Your task to perform on an android device: toggle sleep mode Image 0: 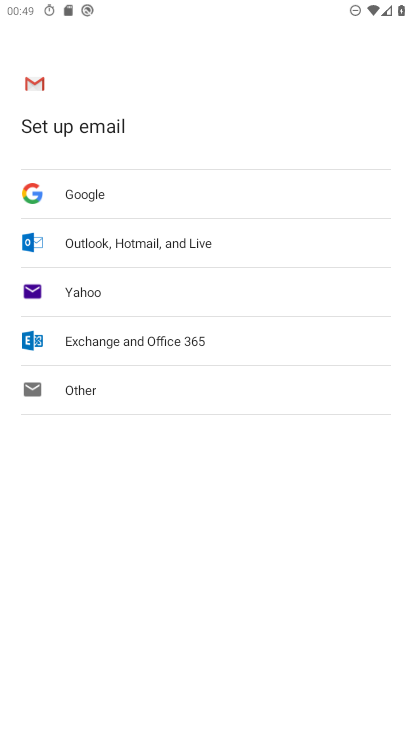
Step 0: press home button
Your task to perform on an android device: toggle sleep mode Image 1: 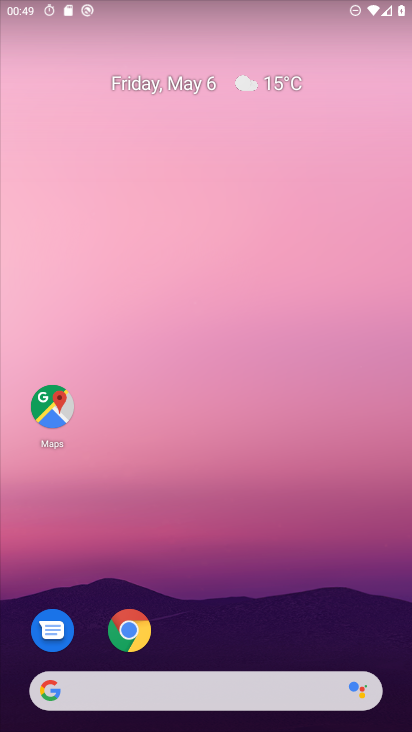
Step 1: drag from (308, 616) to (325, 108)
Your task to perform on an android device: toggle sleep mode Image 2: 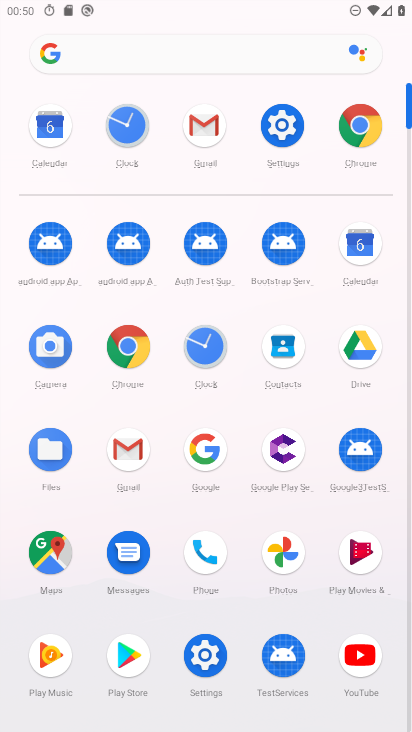
Step 2: click (285, 137)
Your task to perform on an android device: toggle sleep mode Image 3: 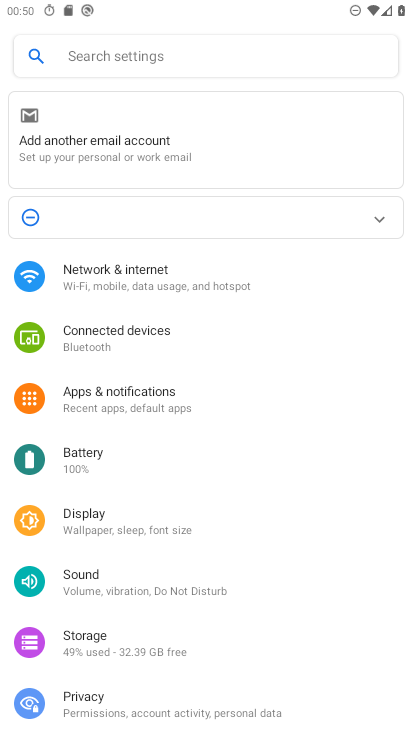
Step 3: drag from (214, 578) to (287, 478)
Your task to perform on an android device: toggle sleep mode Image 4: 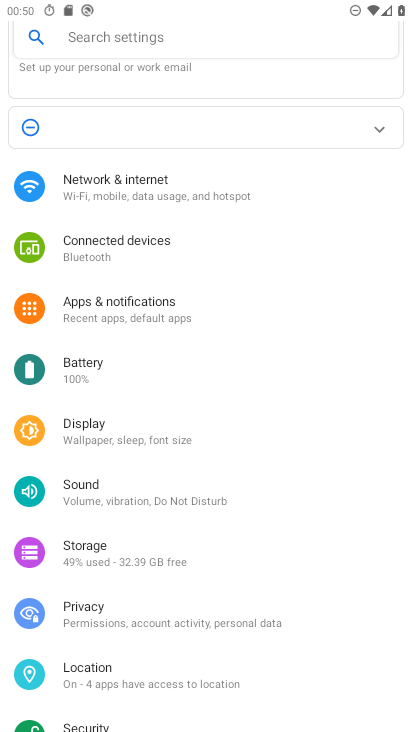
Step 4: click (136, 507)
Your task to perform on an android device: toggle sleep mode Image 5: 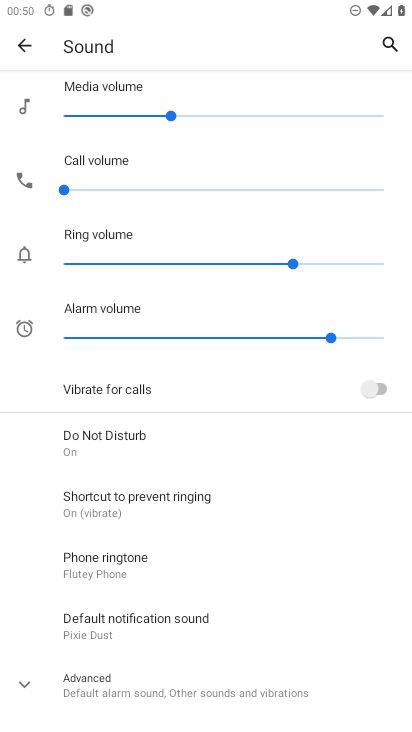
Step 5: task complete